Your task to perform on an android device: turn on location history Image 0: 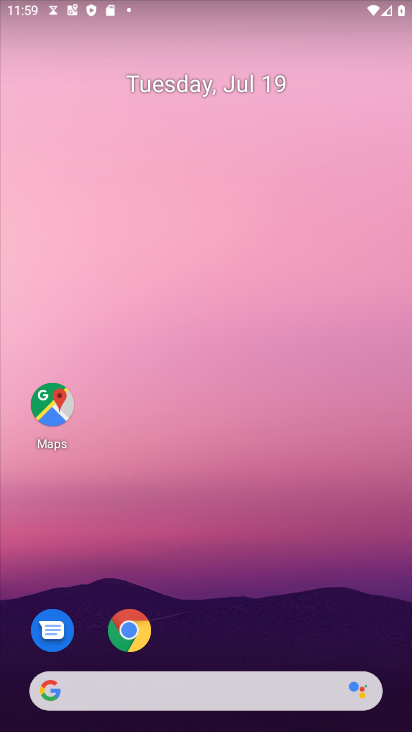
Step 0: drag from (222, 544) to (186, 93)
Your task to perform on an android device: turn on location history Image 1: 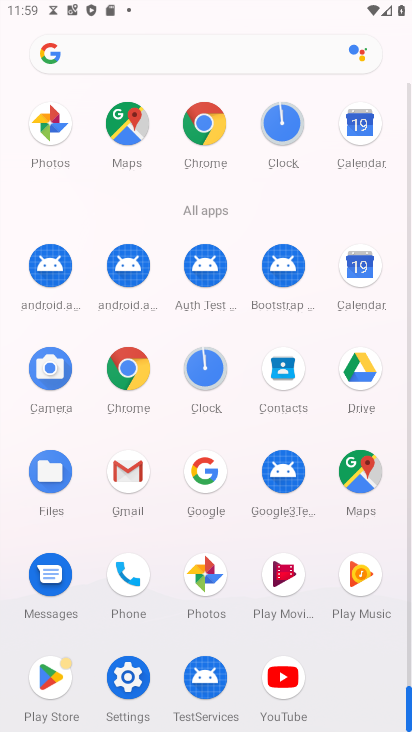
Step 1: drag from (257, 374) to (239, 31)
Your task to perform on an android device: turn on location history Image 2: 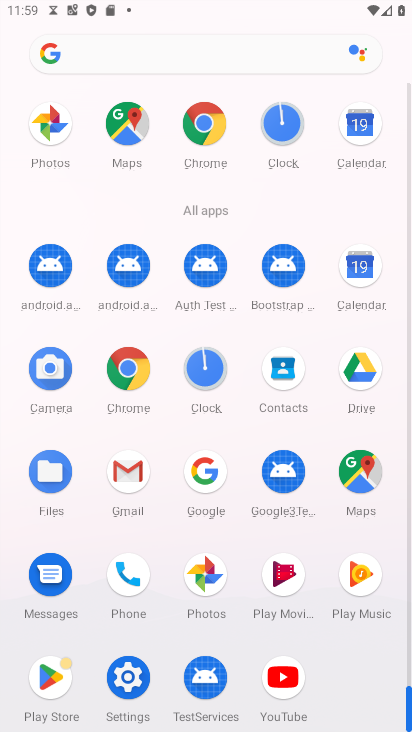
Step 2: click (366, 467)
Your task to perform on an android device: turn on location history Image 3: 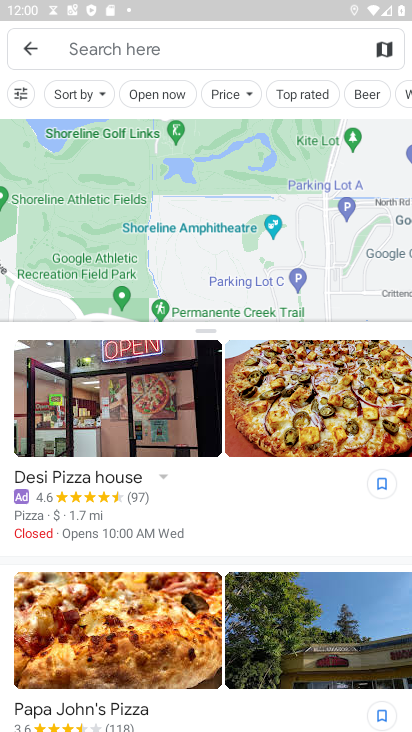
Step 3: click (28, 46)
Your task to perform on an android device: turn on location history Image 4: 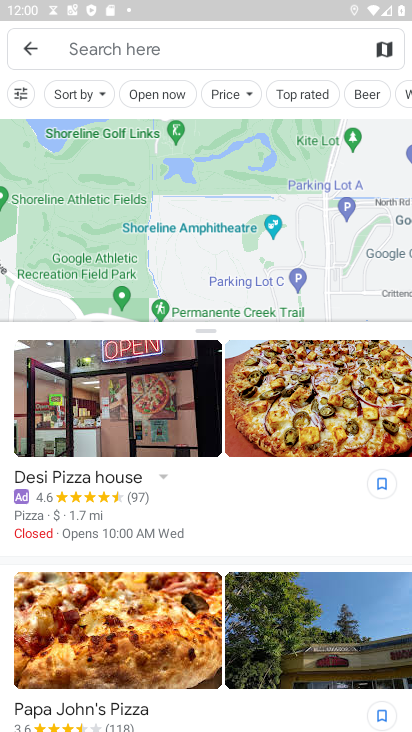
Step 4: click (29, 47)
Your task to perform on an android device: turn on location history Image 5: 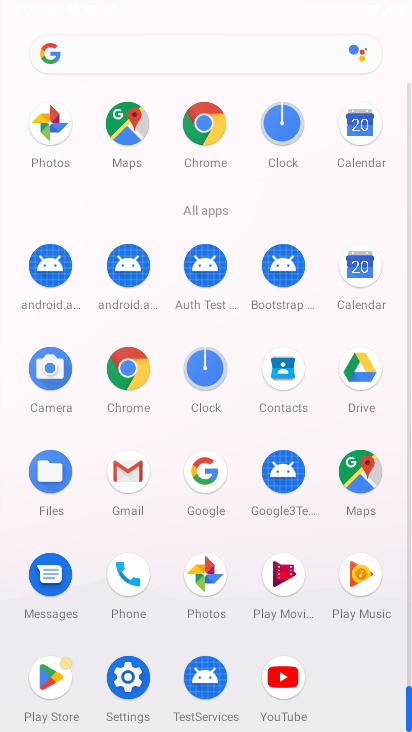
Step 5: click (29, 47)
Your task to perform on an android device: turn on location history Image 6: 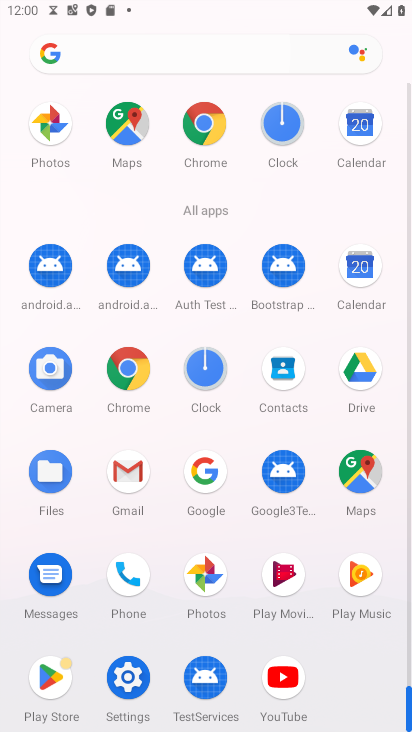
Step 6: click (29, 47)
Your task to perform on an android device: turn on location history Image 7: 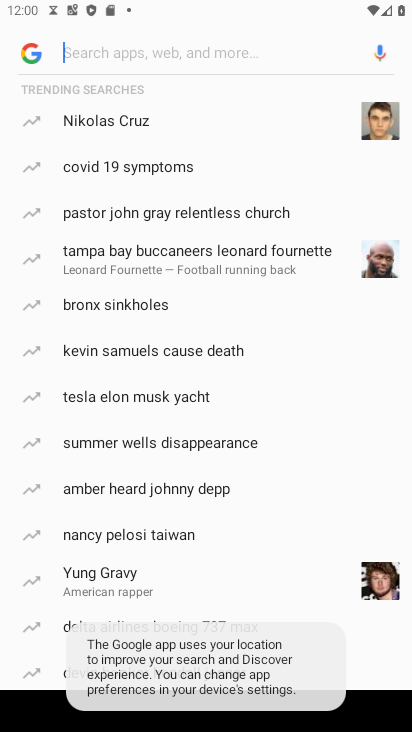
Step 7: press back button
Your task to perform on an android device: turn on location history Image 8: 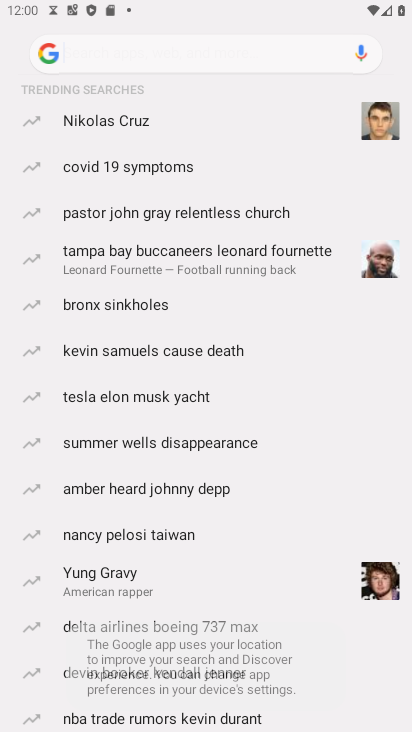
Step 8: press back button
Your task to perform on an android device: turn on location history Image 9: 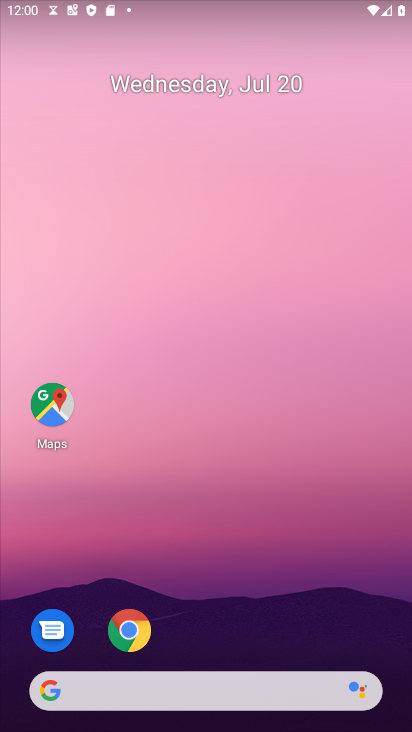
Step 9: click (242, 222)
Your task to perform on an android device: turn on location history Image 10: 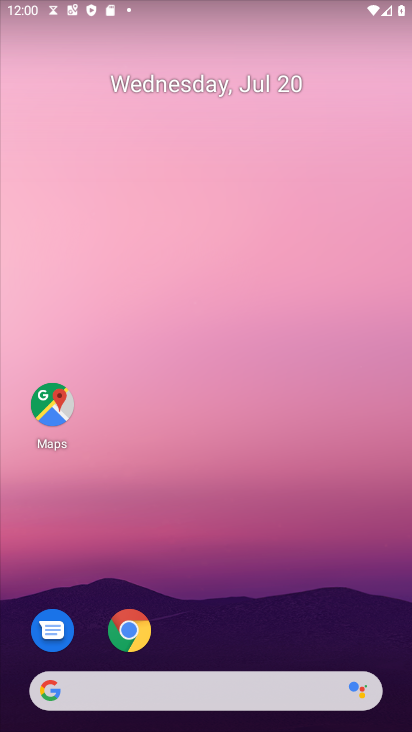
Step 10: drag from (217, 395) to (211, 273)
Your task to perform on an android device: turn on location history Image 11: 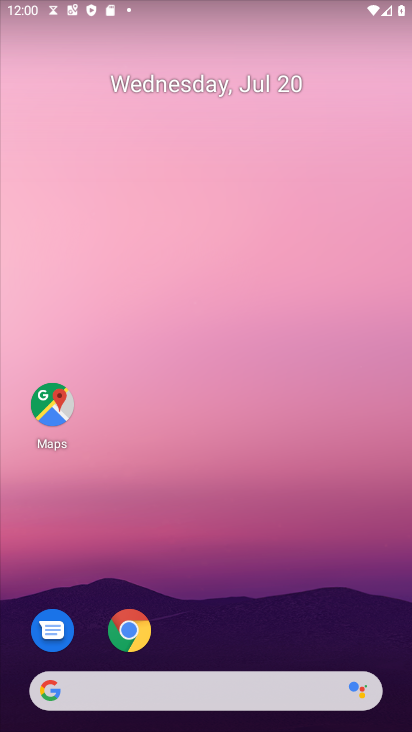
Step 11: click (182, 144)
Your task to perform on an android device: turn on location history Image 12: 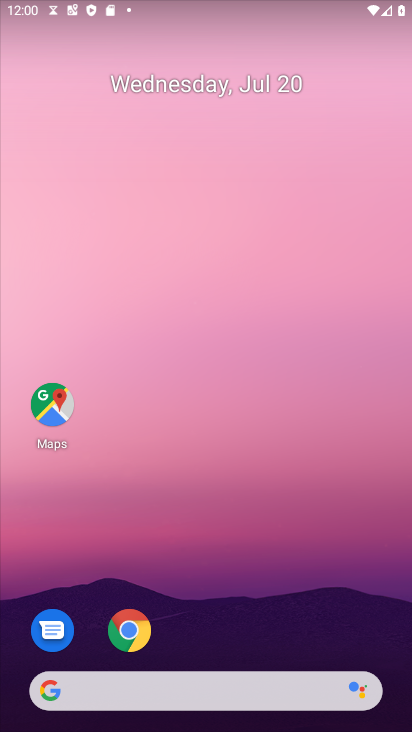
Step 12: drag from (160, 413) to (160, 55)
Your task to perform on an android device: turn on location history Image 13: 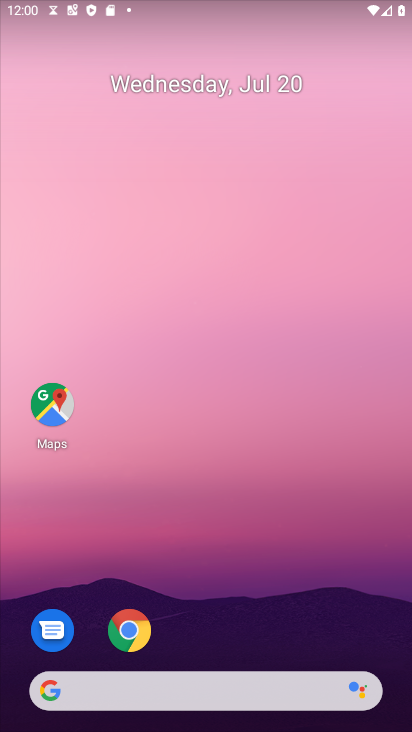
Step 13: click (169, 19)
Your task to perform on an android device: turn on location history Image 14: 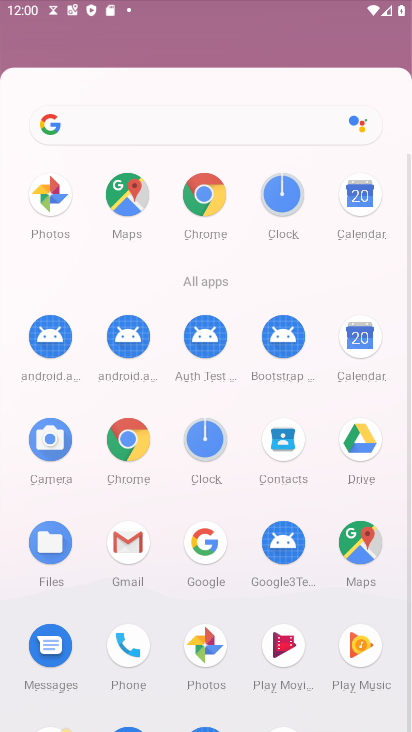
Step 14: drag from (121, 20) to (173, 31)
Your task to perform on an android device: turn on location history Image 15: 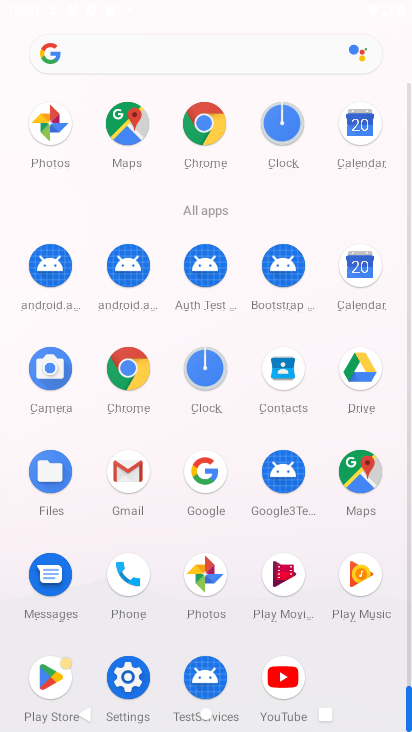
Step 15: drag from (176, 449) to (222, 157)
Your task to perform on an android device: turn on location history Image 16: 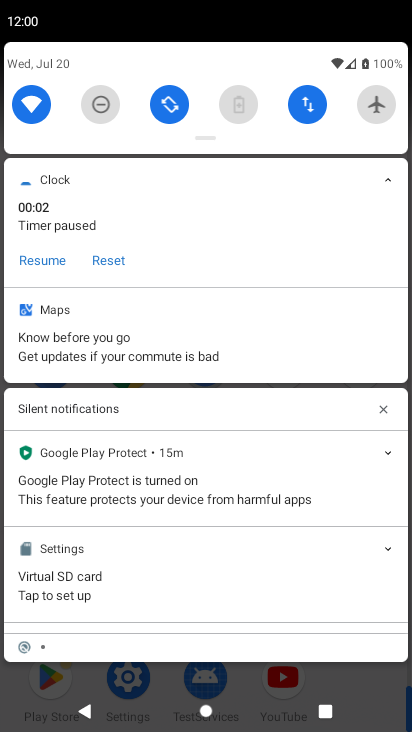
Step 16: press back button
Your task to perform on an android device: turn on location history Image 17: 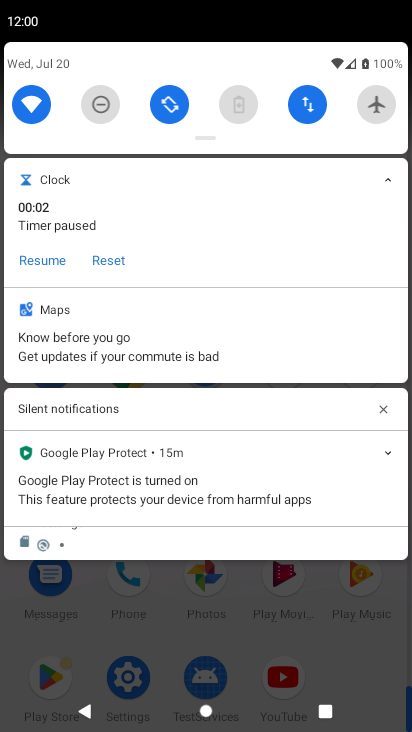
Step 17: press back button
Your task to perform on an android device: turn on location history Image 18: 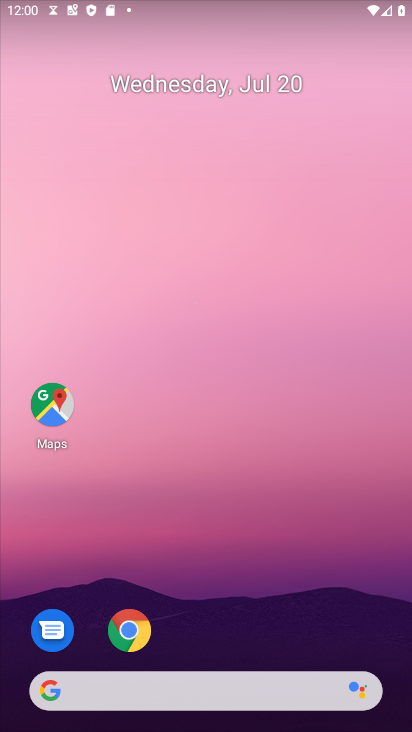
Step 18: drag from (210, 663) to (146, 148)
Your task to perform on an android device: turn on location history Image 19: 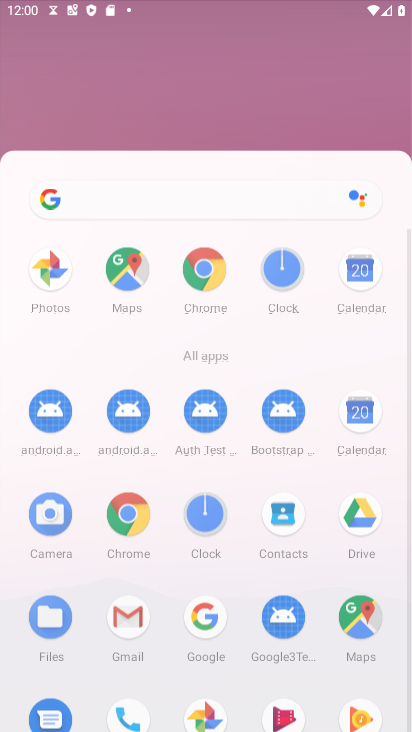
Step 19: drag from (198, 445) to (187, 14)
Your task to perform on an android device: turn on location history Image 20: 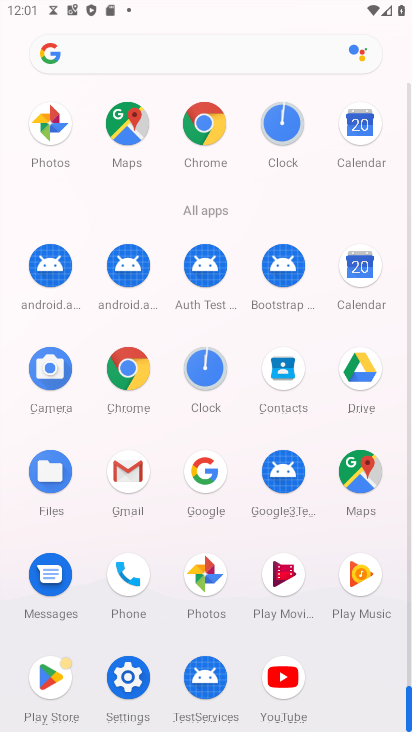
Step 20: click (130, 677)
Your task to perform on an android device: turn on location history Image 21: 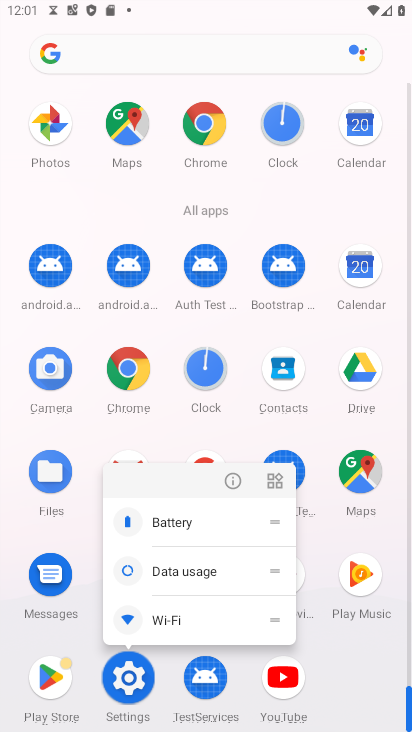
Step 21: click (130, 677)
Your task to perform on an android device: turn on location history Image 22: 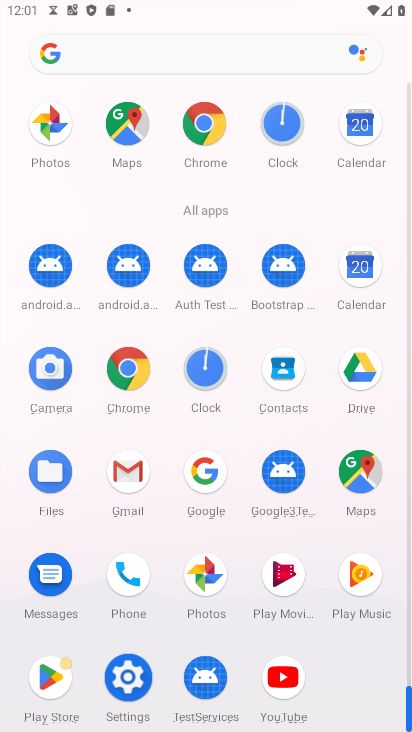
Step 22: click (130, 668)
Your task to perform on an android device: turn on location history Image 23: 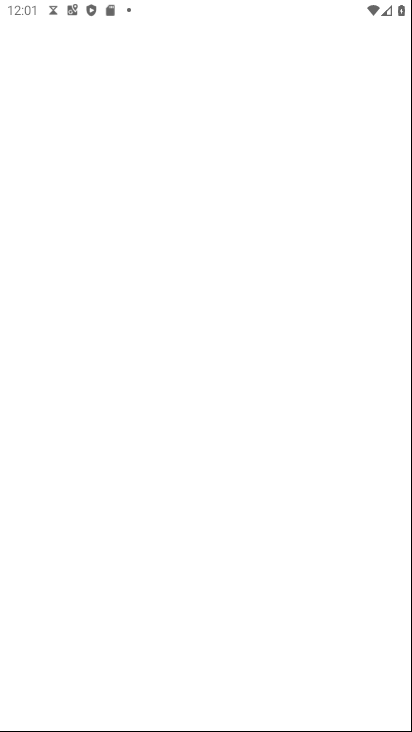
Step 23: click (126, 661)
Your task to perform on an android device: turn on location history Image 24: 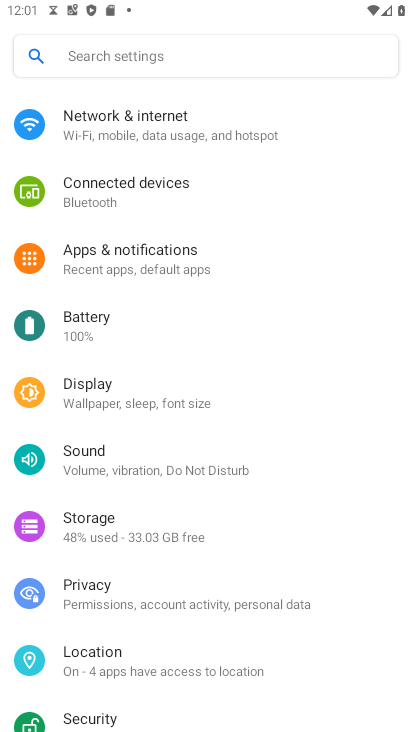
Step 24: click (124, 658)
Your task to perform on an android device: turn on location history Image 25: 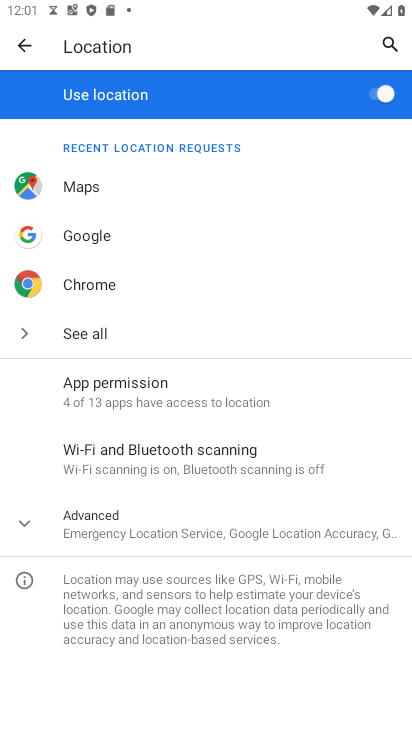
Step 25: click (91, 522)
Your task to perform on an android device: turn on location history Image 26: 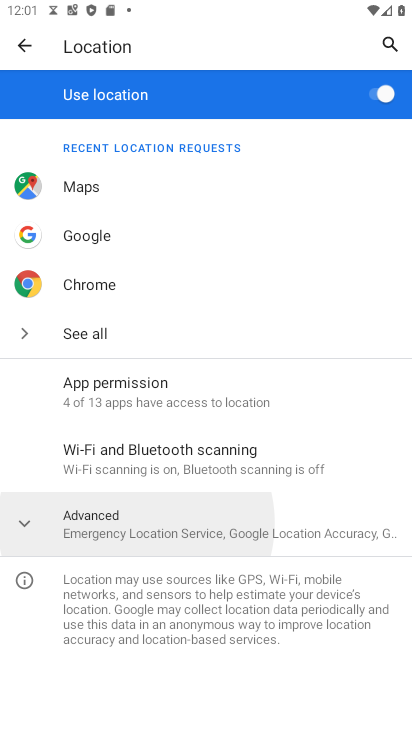
Step 26: click (91, 521)
Your task to perform on an android device: turn on location history Image 27: 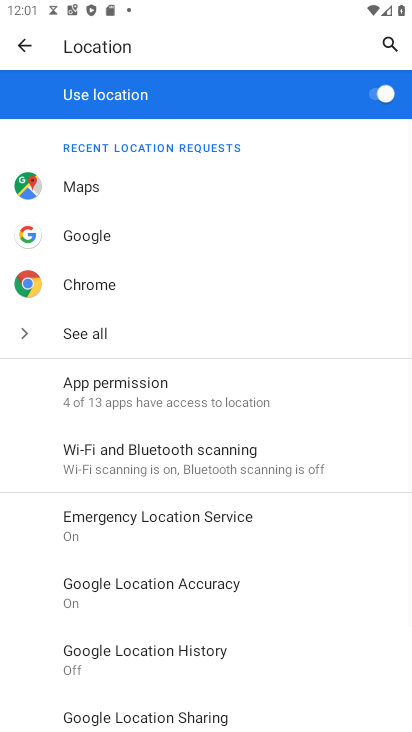
Step 27: drag from (172, 578) to (153, 304)
Your task to perform on an android device: turn on location history Image 28: 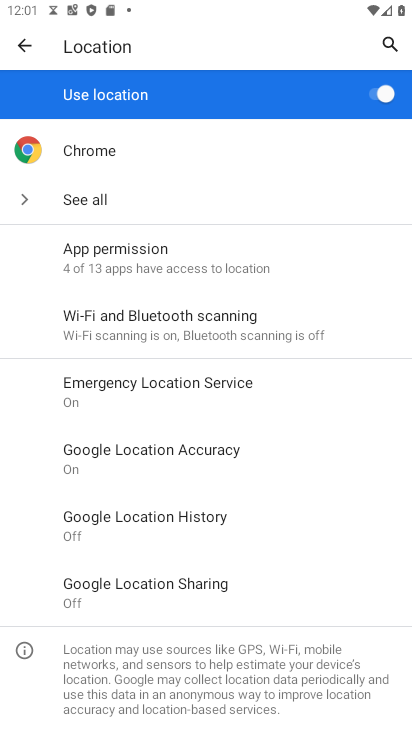
Step 28: click (112, 250)
Your task to perform on an android device: turn on location history Image 29: 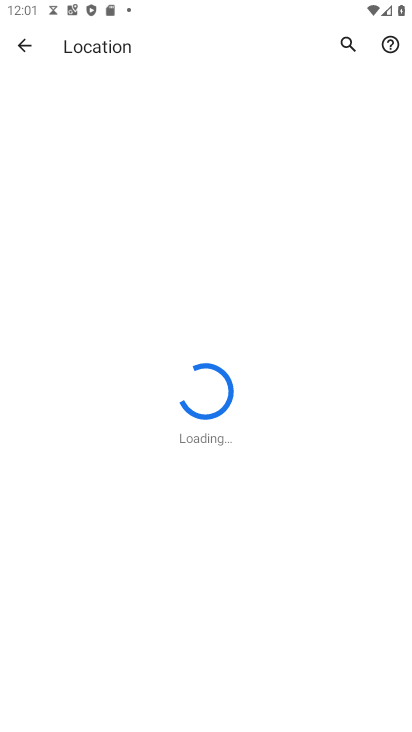
Step 29: click (94, 521)
Your task to perform on an android device: turn on location history Image 30: 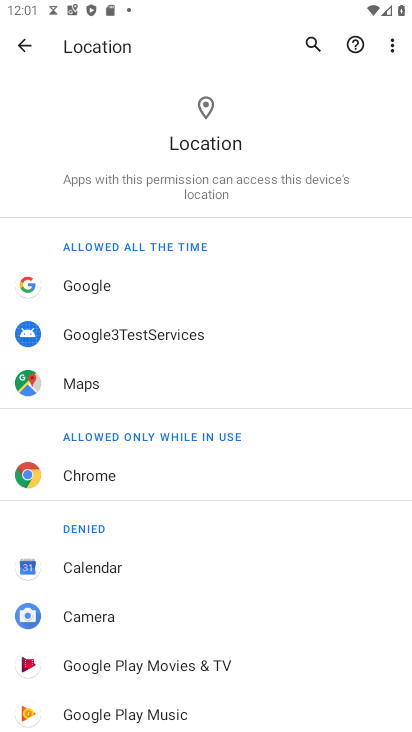
Step 30: drag from (76, 575) to (60, 204)
Your task to perform on an android device: turn on location history Image 31: 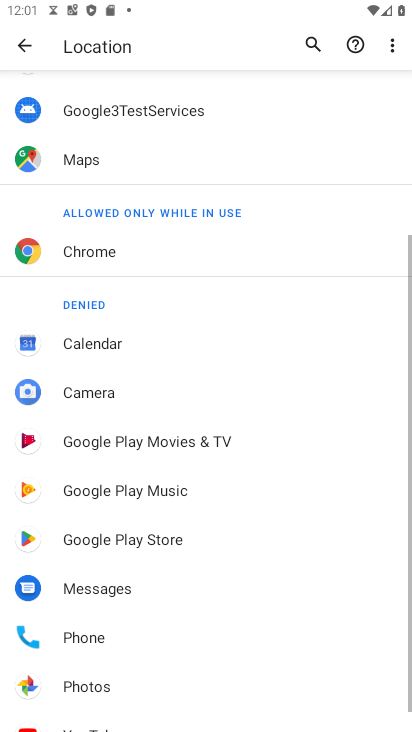
Step 31: click (153, 202)
Your task to perform on an android device: turn on location history Image 32: 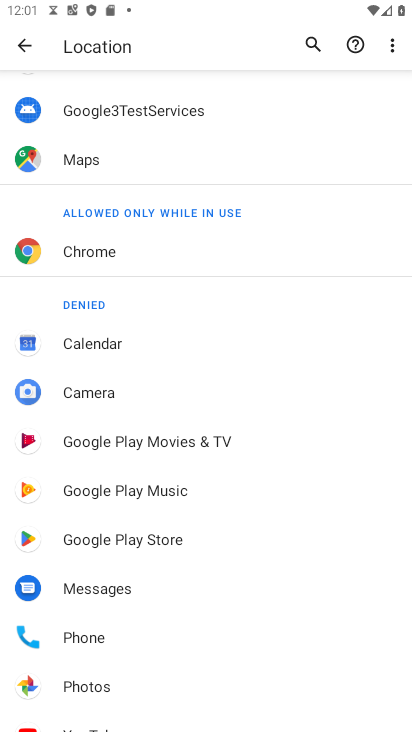
Step 32: click (24, 52)
Your task to perform on an android device: turn on location history Image 33: 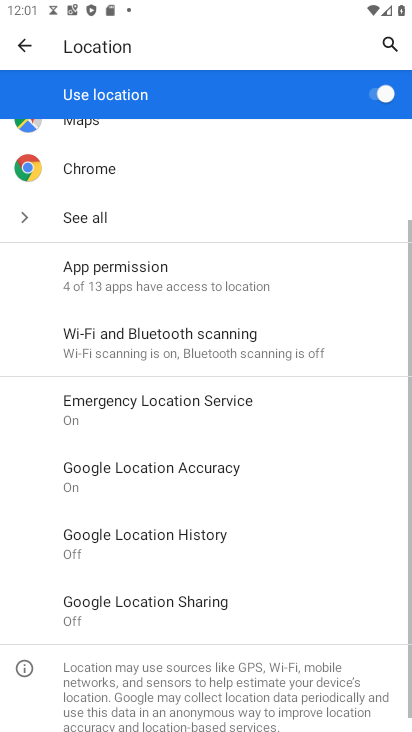
Step 33: click (140, 540)
Your task to perform on an android device: turn on location history Image 34: 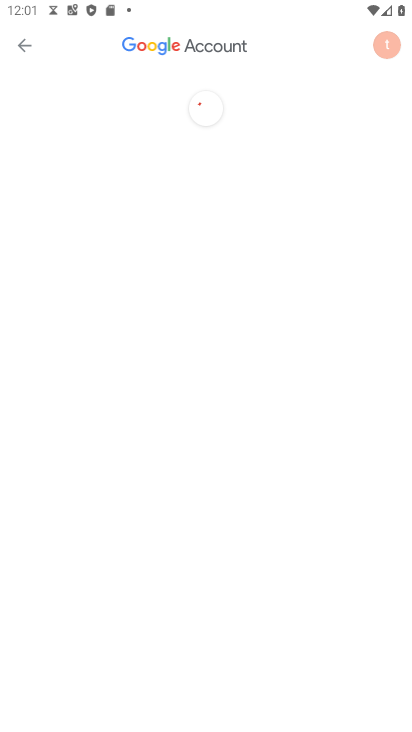
Step 34: click (17, 42)
Your task to perform on an android device: turn on location history Image 35: 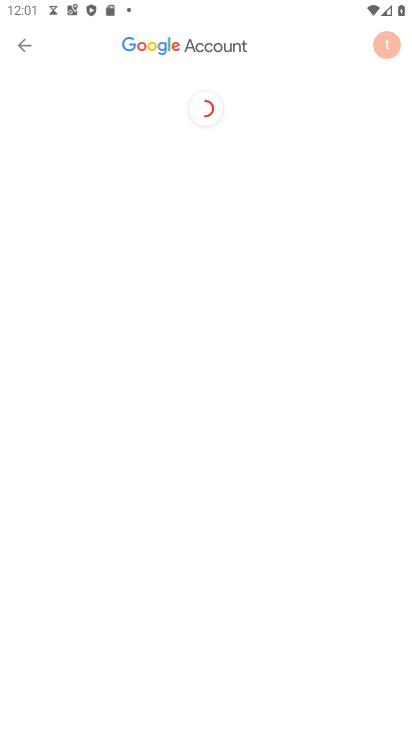
Step 35: click (19, 42)
Your task to perform on an android device: turn on location history Image 36: 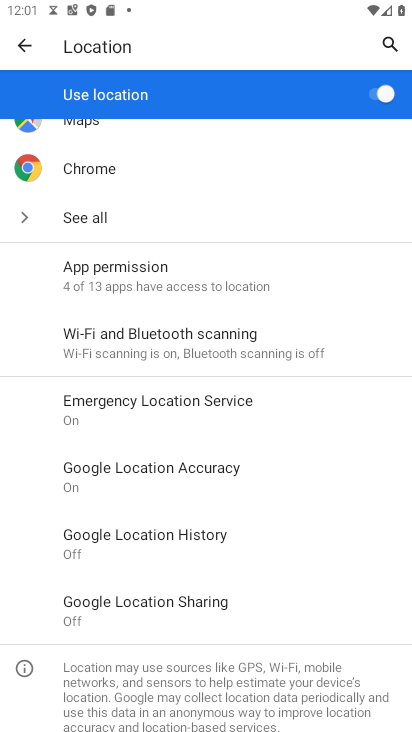
Step 36: click (110, 535)
Your task to perform on an android device: turn on location history Image 37: 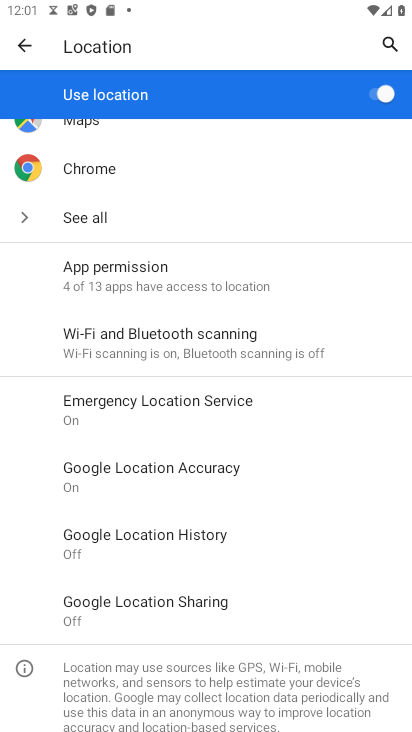
Step 37: click (108, 531)
Your task to perform on an android device: turn on location history Image 38: 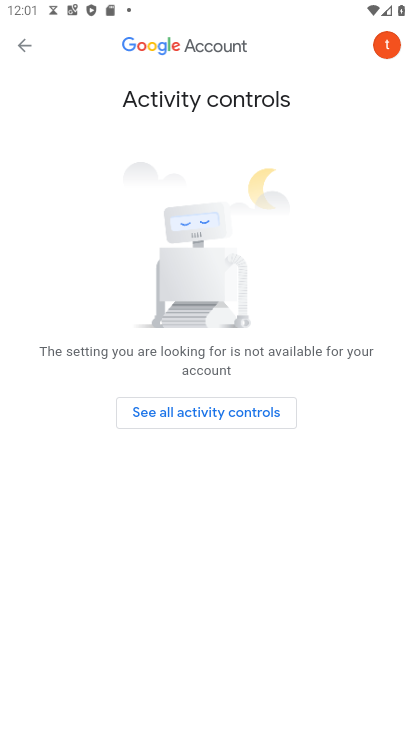
Step 38: click (233, 415)
Your task to perform on an android device: turn on location history Image 39: 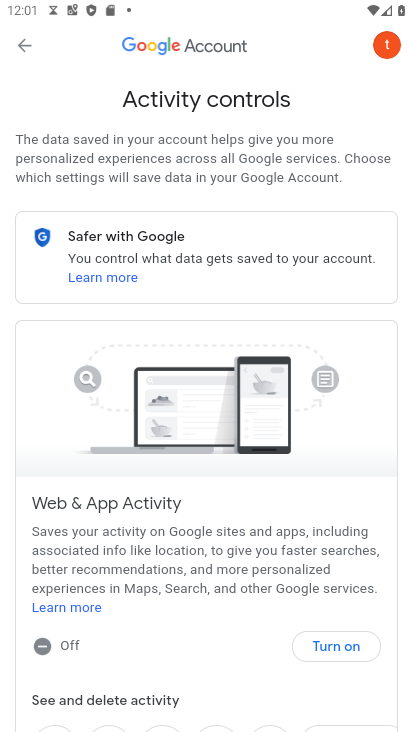
Step 39: click (233, 411)
Your task to perform on an android device: turn on location history Image 40: 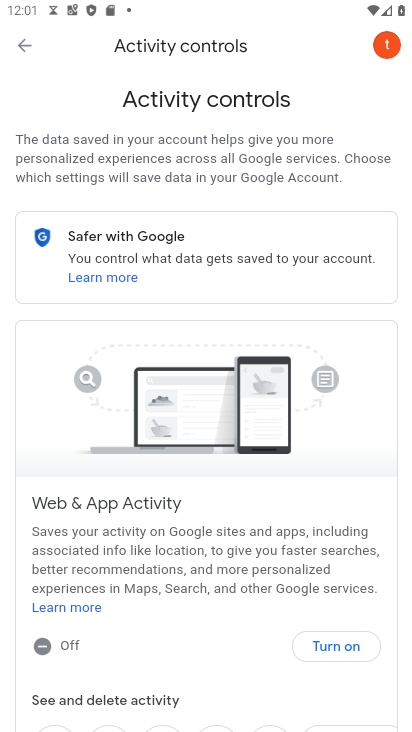
Step 40: click (340, 648)
Your task to perform on an android device: turn on location history Image 41: 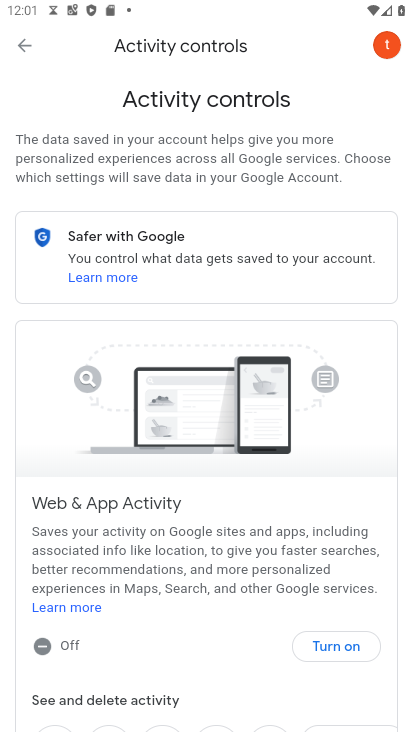
Step 41: task complete